Your task to perform on an android device: move a message to another label in the gmail app Image 0: 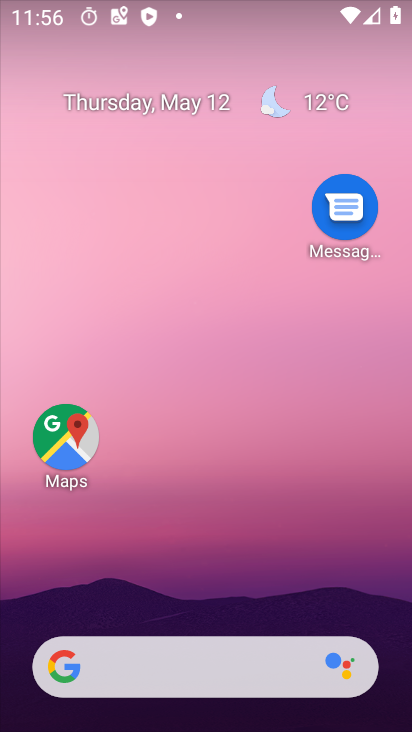
Step 0: drag from (199, 538) to (94, 110)
Your task to perform on an android device: move a message to another label in the gmail app Image 1: 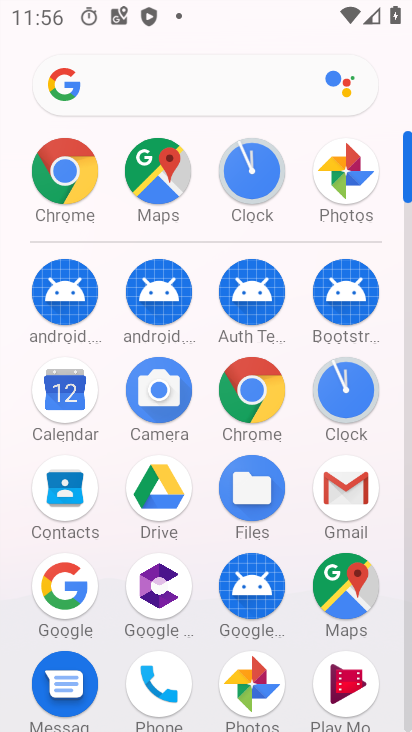
Step 1: click (336, 488)
Your task to perform on an android device: move a message to another label in the gmail app Image 2: 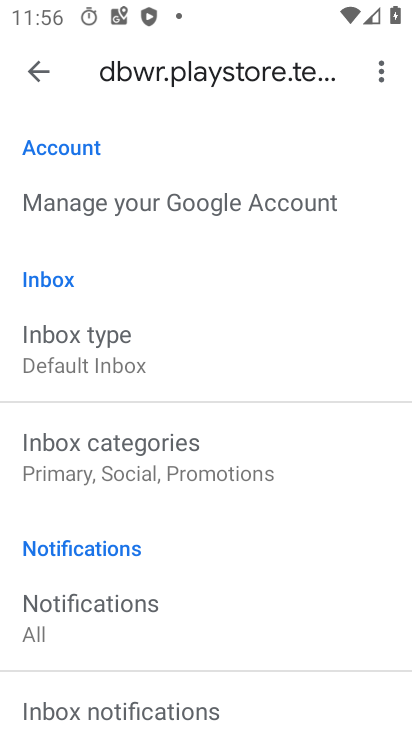
Step 2: drag from (169, 628) to (200, 260)
Your task to perform on an android device: move a message to another label in the gmail app Image 3: 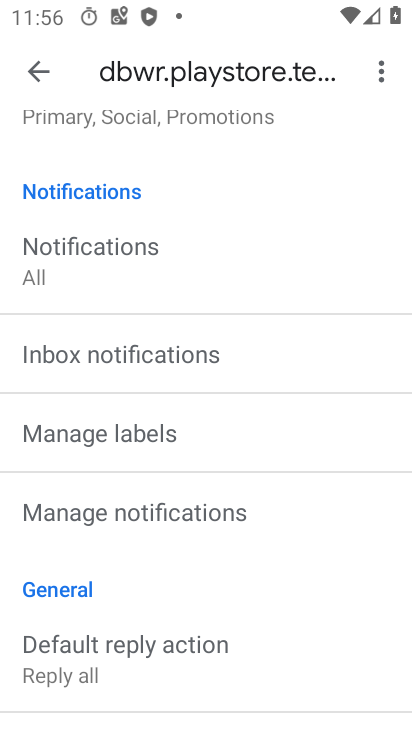
Step 3: click (45, 67)
Your task to perform on an android device: move a message to another label in the gmail app Image 4: 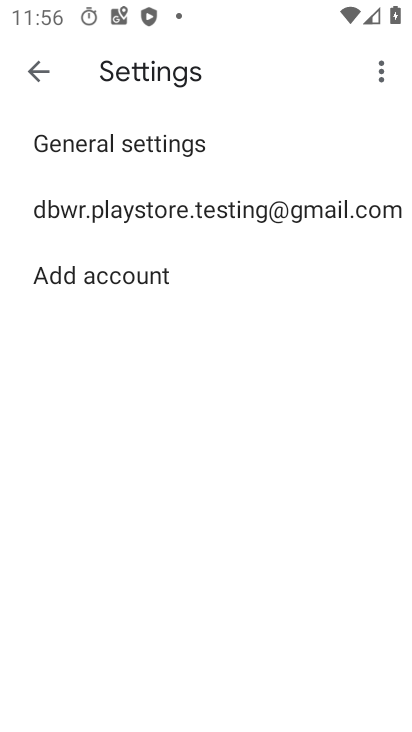
Step 4: click (43, 67)
Your task to perform on an android device: move a message to another label in the gmail app Image 5: 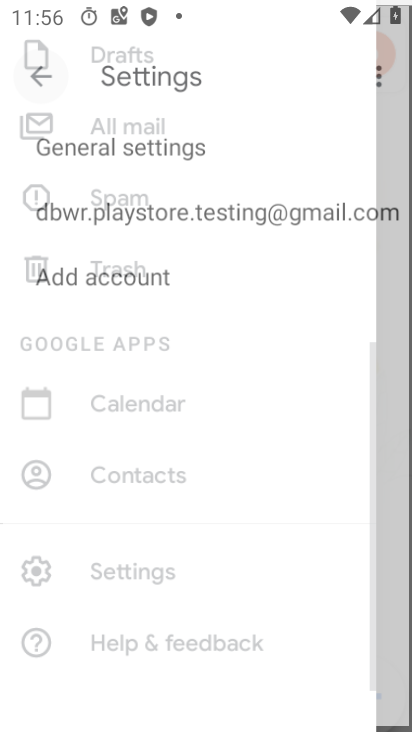
Step 5: click (43, 67)
Your task to perform on an android device: move a message to another label in the gmail app Image 6: 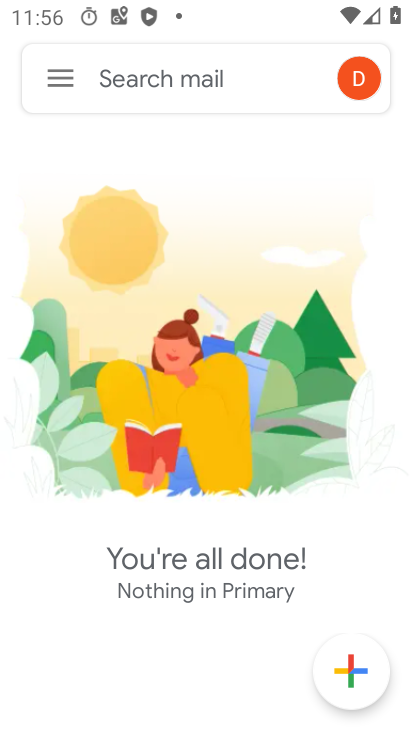
Step 6: click (43, 67)
Your task to perform on an android device: move a message to another label in the gmail app Image 7: 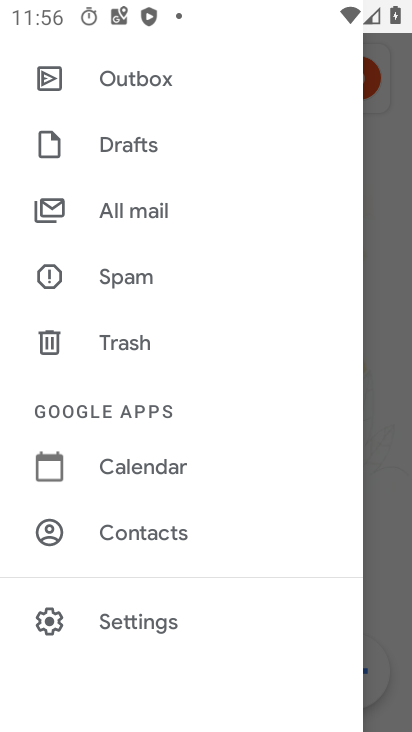
Step 7: task complete